Your task to perform on an android device: turn on showing notifications on the lock screen Image 0: 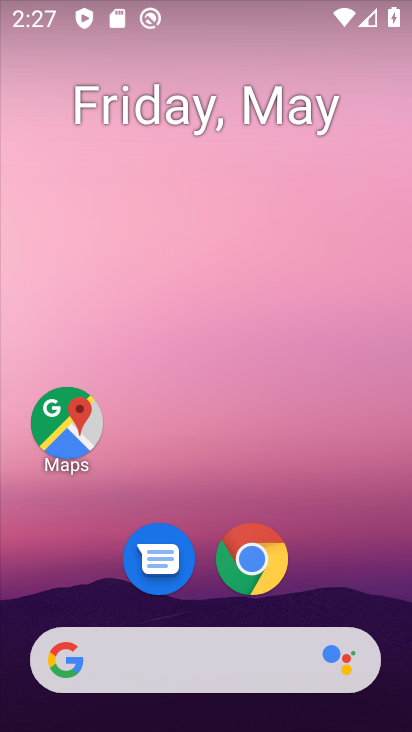
Step 0: drag from (324, 394) to (229, 0)
Your task to perform on an android device: turn on showing notifications on the lock screen Image 1: 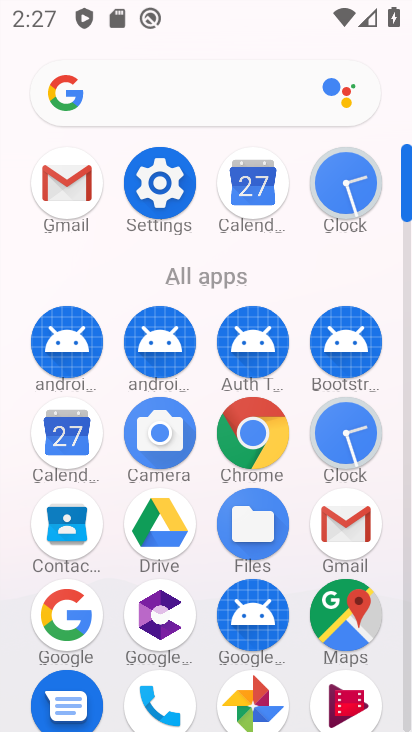
Step 1: click (165, 181)
Your task to perform on an android device: turn on showing notifications on the lock screen Image 2: 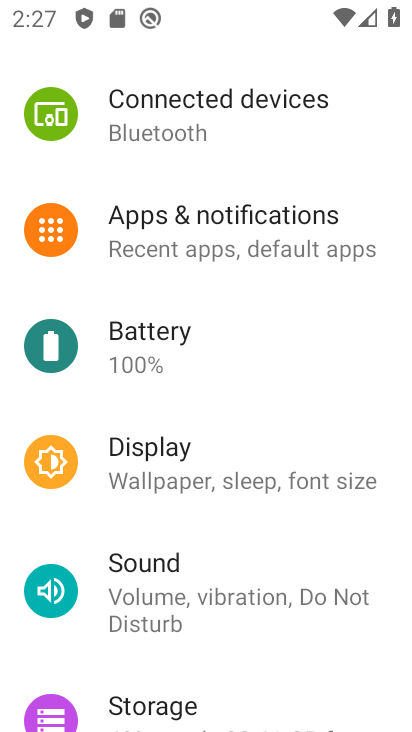
Step 2: click (218, 245)
Your task to perform on an android device: turn on showing notifications on the lock screen Image 3: 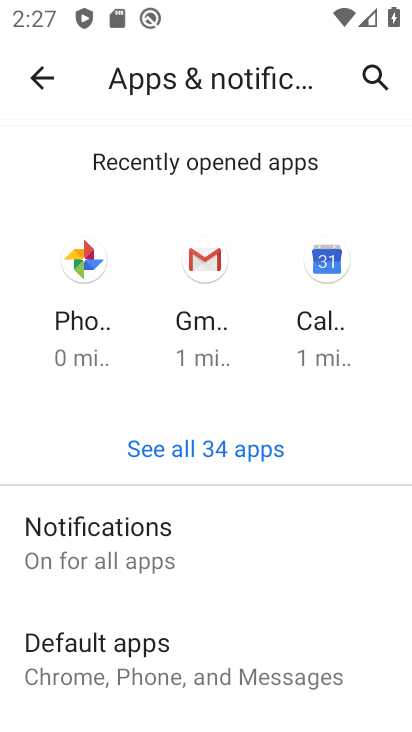
Step 3: drag from (278, 544) to (229, 247)
Your task to perform on an android device: turn on showing notifications on the lock screen Image 4: 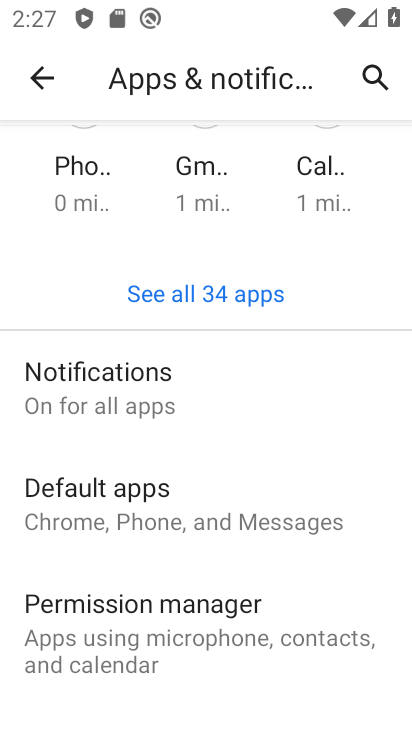
Step 4: click (177, 387)
Your task to perform on an android device: turn on showing notifications on the lock screen Image 5: 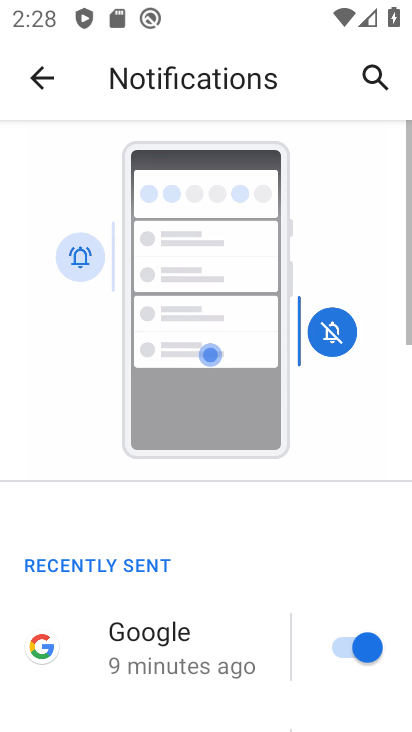
Step 5: drag from (239, 586) to (204, 137)
Your task to perform on an android device: turn on showing notifications on the lock screen Image 6: 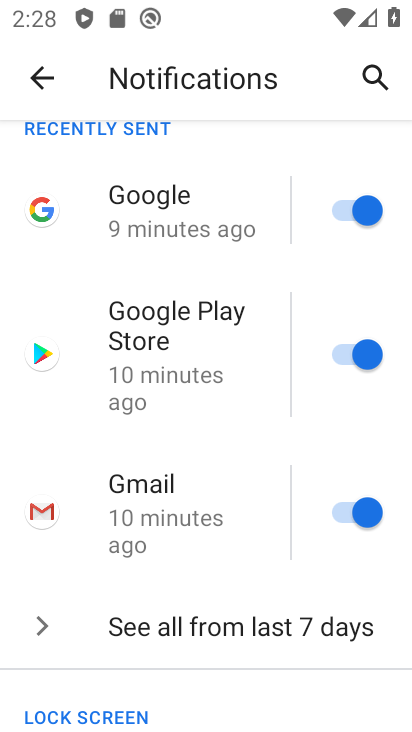
Step 6: drag from (200, 630) to (206, 298)
Your task to perform on an android device: turn on showing notifications on the lock screen Image 7: 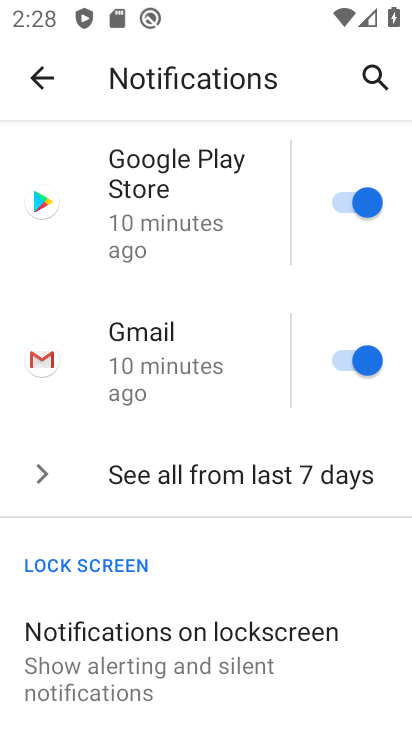
Step 7: click (243, 640)
Your task to perform on an android device: turn on showing notifications on the lock screen Image 8: 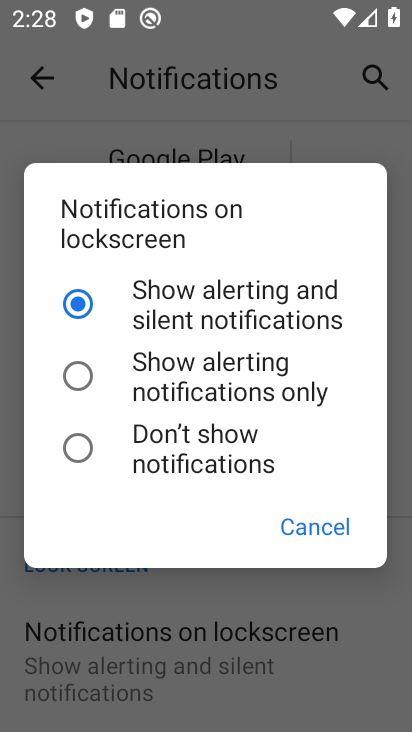
Step 8: task complete